Your task to perform on an android device: Open Google Maps and go to "Timeline" Image 0: 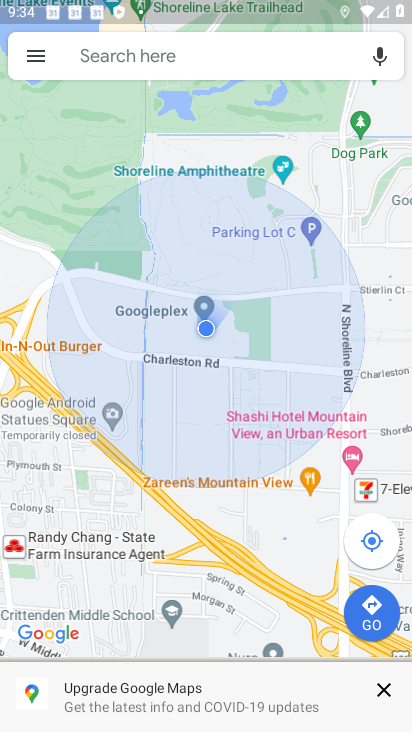
Step 0: press home button
Your task to perform on an android device: Open Google Maps and go to "Timeline" Image 1: 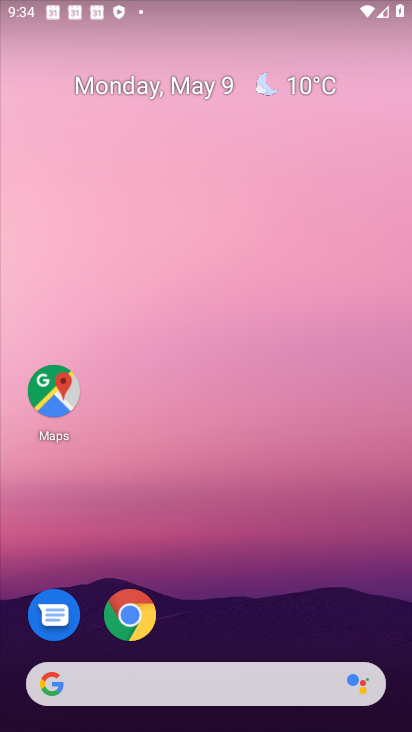
Step 1: click (52, 384)
Your task to perform on an android device: Open Google Maps and go to "Timeline" Image 2: 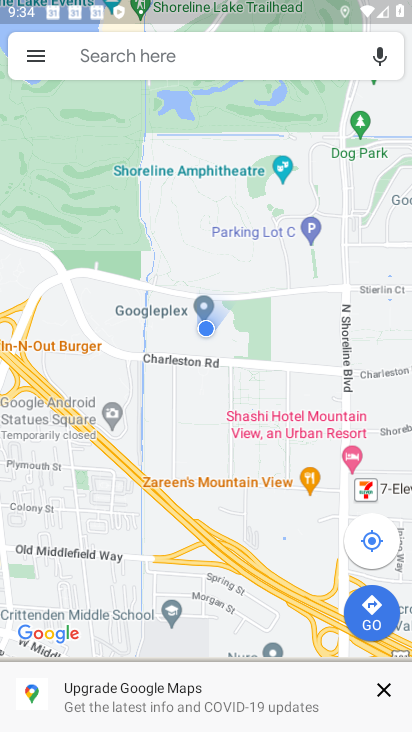
Step 2: click (31, 44)
Your task to perform on an android device: Open Google Maps and go to "Timeline" Image 3: 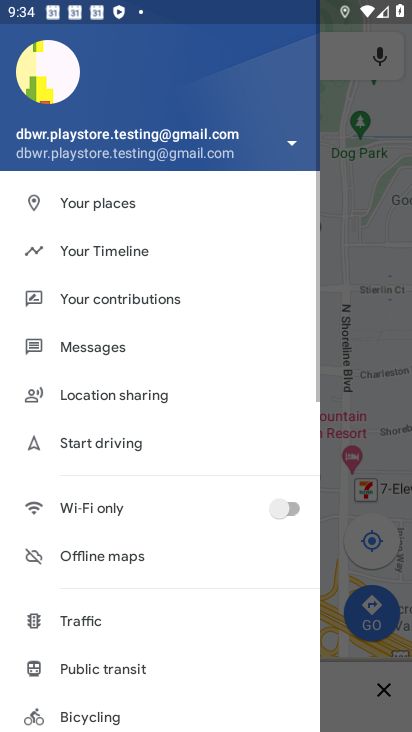
Step 3: click (90, 261)
Your task to perform on an android device: Open Google Maps and go to "Timeline" Image 4: 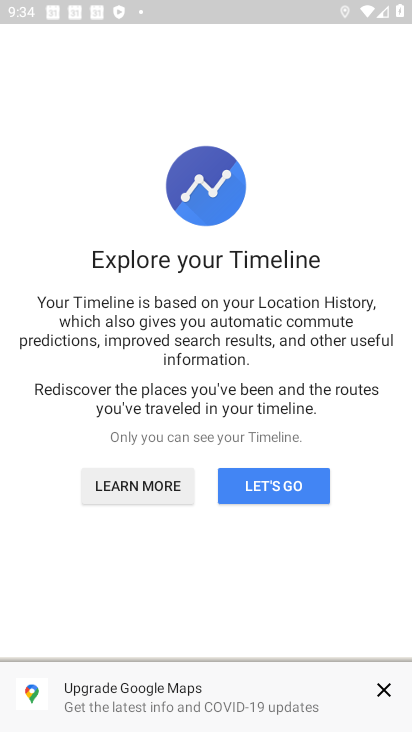
Step 4: click (241, 488)
Your task to perform on an android device: Open Google Maps and go to "Timeline" Image 5: 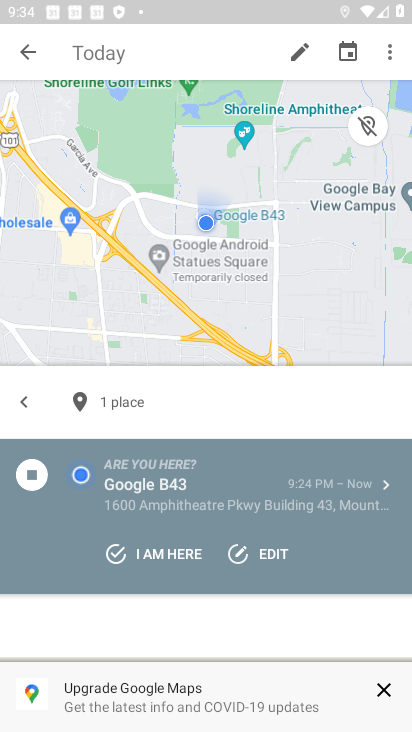
Step 5: task complete